Your task to perform on an android device: create a new album in the google photos Image 0: 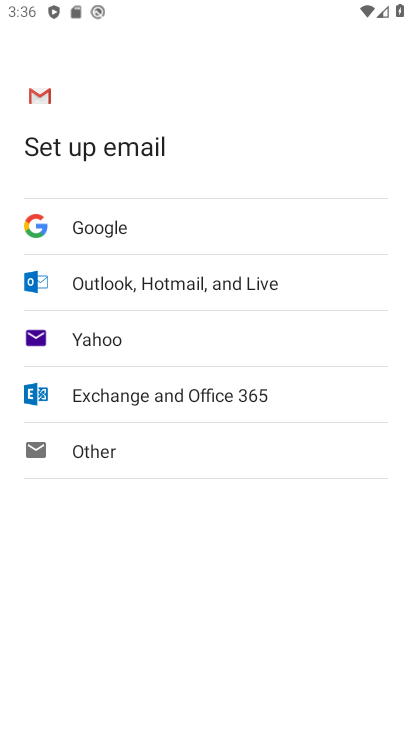
Step 0: press back button
Your task to perform on an android device: create a new album in the google photos Image 1: 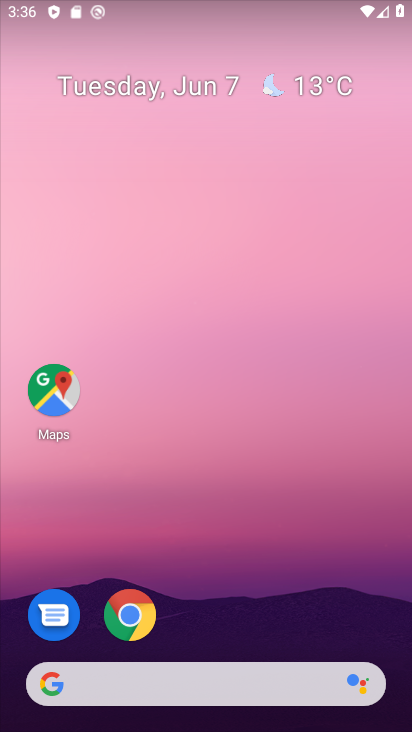
Step 1: drag from (201, 555) to (191, 250)
Your task to perform on an android device: create a new album in the google photos Image 2: 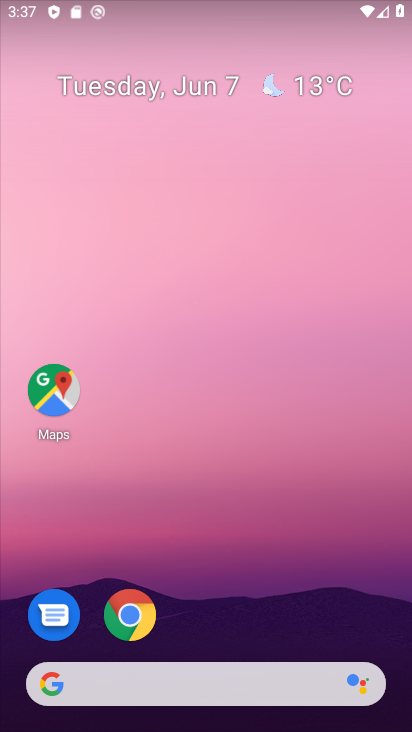
Step 2: drag from (275, 654) to (267, 217)
Your task to perform on an android device: create a new album in the google photos Image 3: 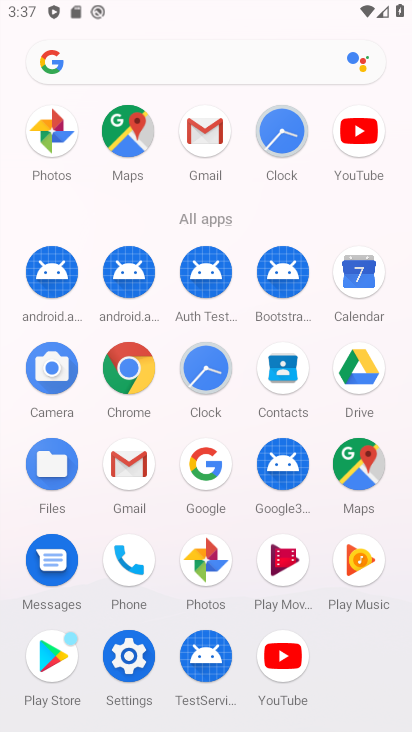
Step 3: click (202, 568)
Your task to perform on an android device: create a new album in the google photos Image 4: 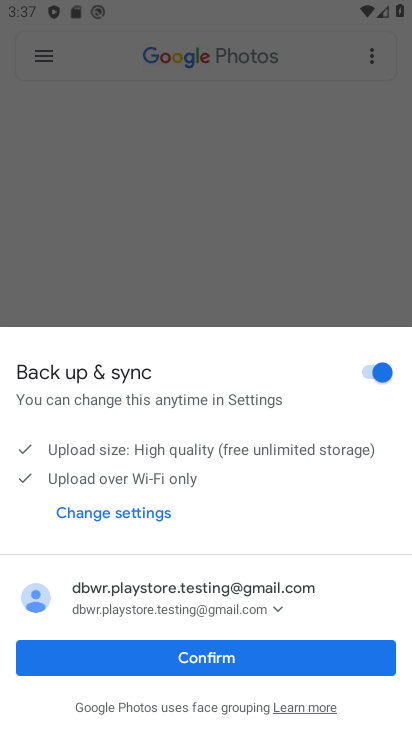
Step 4: click (258, 655)
Your task to perform on an android device: create a new album in the google photos Image 5: 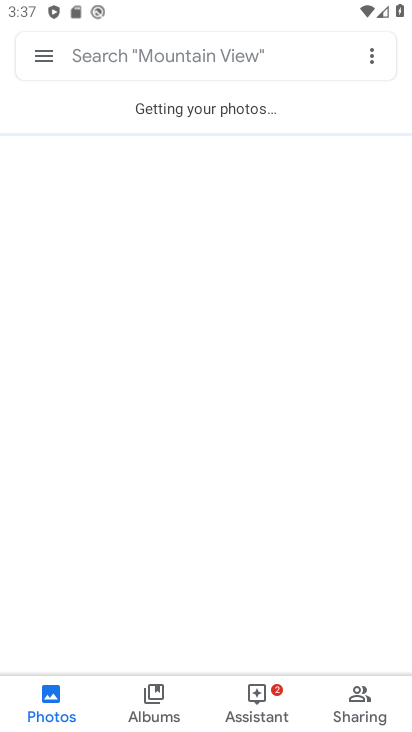
Step 5: click (158, 707)
Your task to perform on an android device: create a new album in the google photos Image 6: 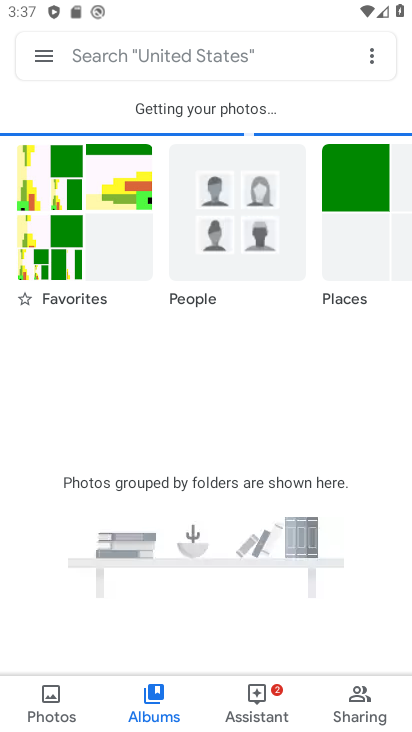
Step 6: drag from (367, 58) to (234, 294)
Your task to perform on an android device: create a new album in the google photos Image 7: 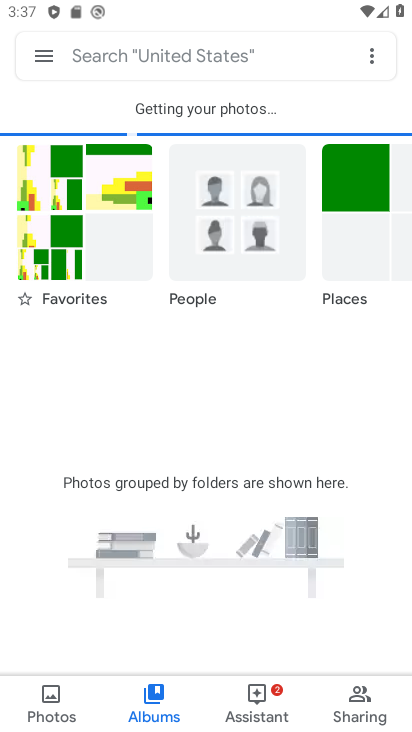
Step 7: click (333, 90)
Your task to perform on an android device: create a new album in the google photos Image 8: 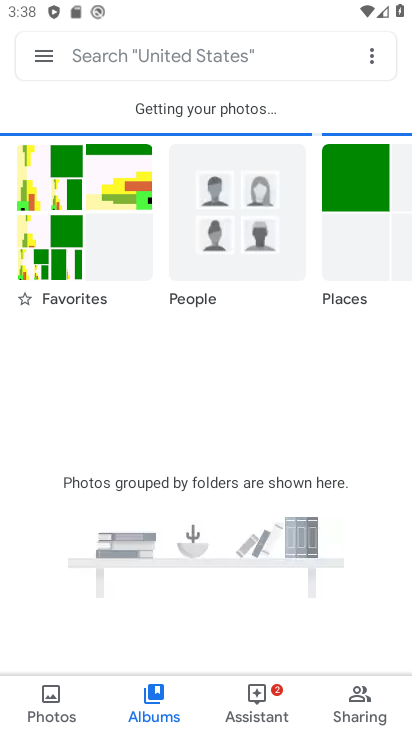
Step 8: click (333, 90)
Your task to perform on an android device: create a new album in the google photos Image 9: 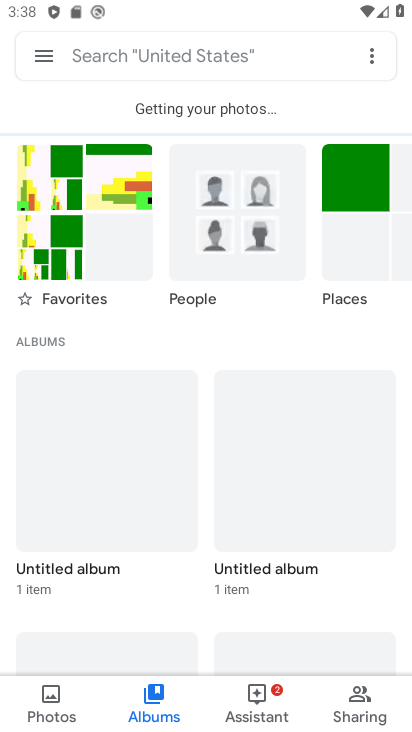
Step 9: click (364, 59)
Your task to perform on an android device: create a new album in the google photos Image 10: 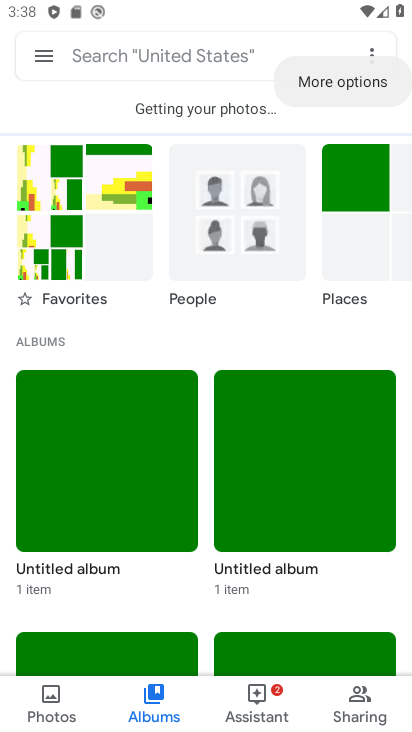
Step 10: click (362, 59)
Your task to perform on an android device: create a new album in the google photos Image 11: 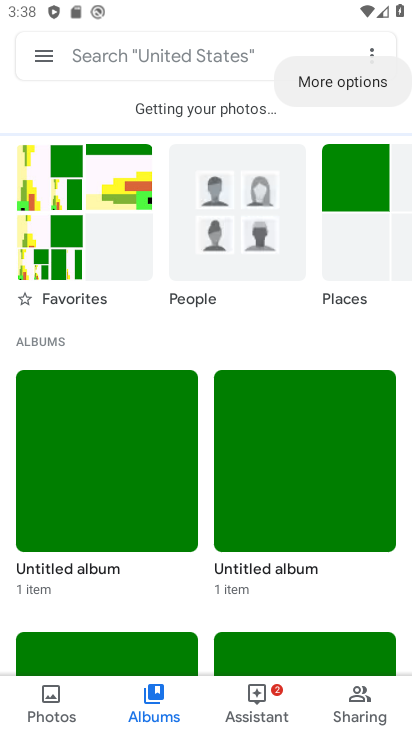
Step 11: click (356, 62)
Your task to perform on an android device: create a new album in the google photos Image 12: 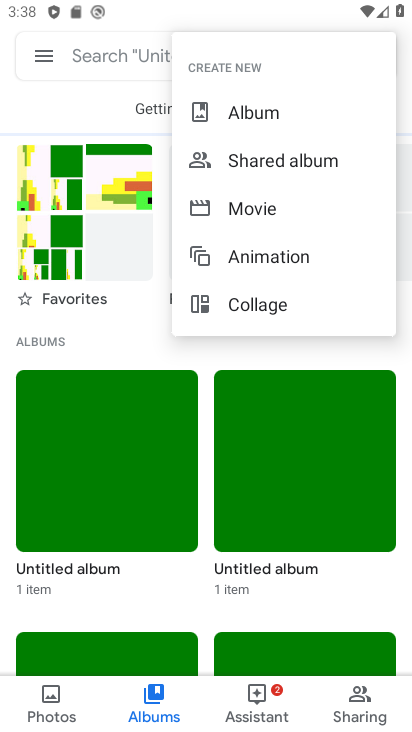
Step 12: click (246, 109)
Your task to perform on an android device: create a new album in the google photos Image 13: 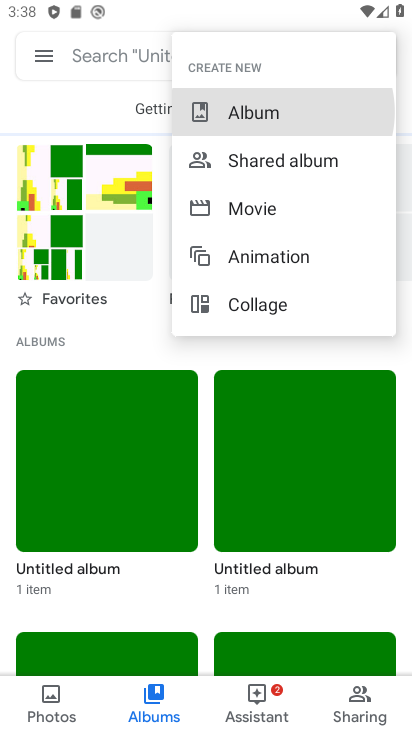
Step 13: click (241, 121)
Your task to perform on an android device: create a new album in the google photos Image 14: 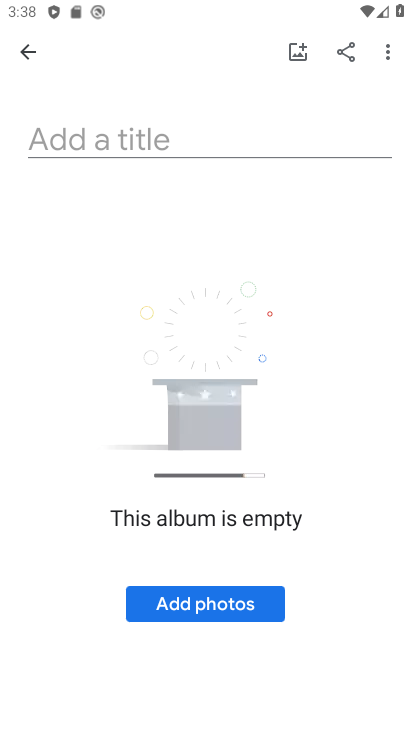
Step 14: click (87, 145)
Your task to perform on an android device: create a new album in the google photos Image 15: 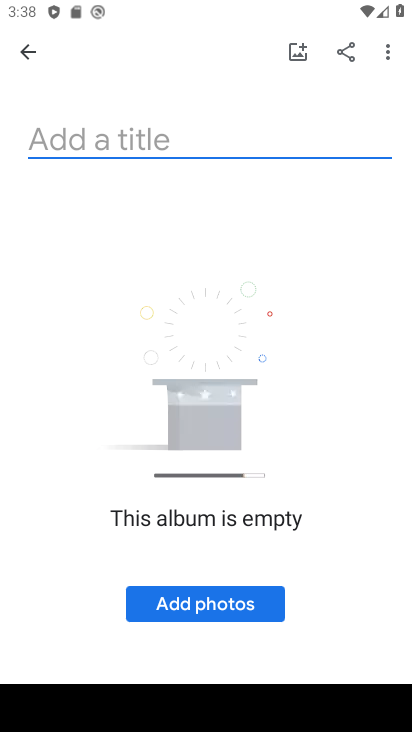
Step 15: type "raman"
Your task to perform on an android device: create a new album in the google photos Image 16: 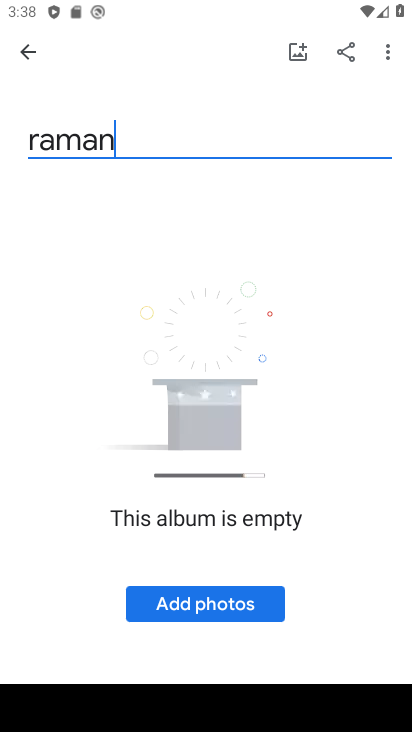
Step 16: click (195, 604)
Your task to perform on an android device: create a new album in the google photos Image 17: 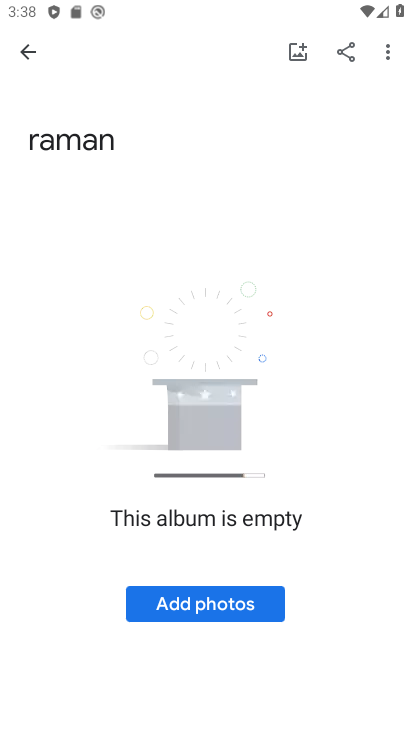
Step 17: click (195, 604)
Your task to perform on an android device: create a new album in the google photos Image 18: 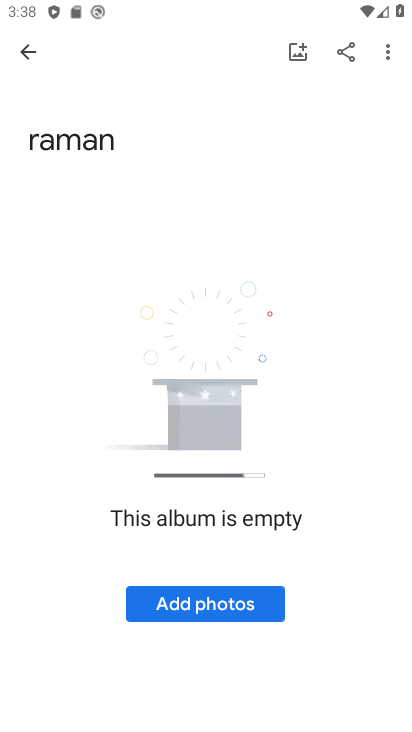
Step 18: click (195, 604)
Your task to perform on an android device: create a new album in the google photos Image 19: 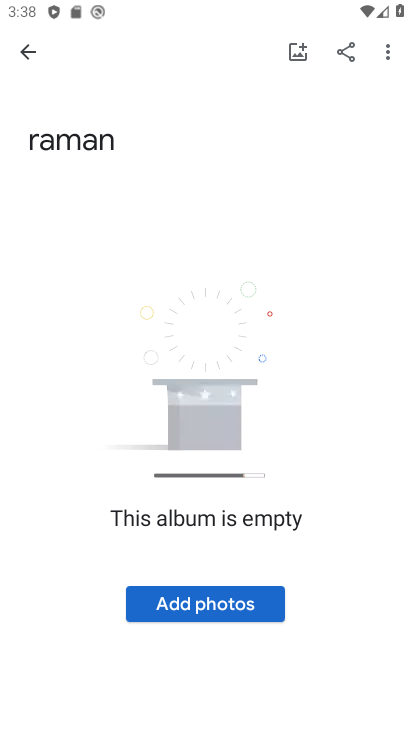
Step 19: click (195, 604)
Your task to perform on an android device: create a new album in the google photos Image 20: 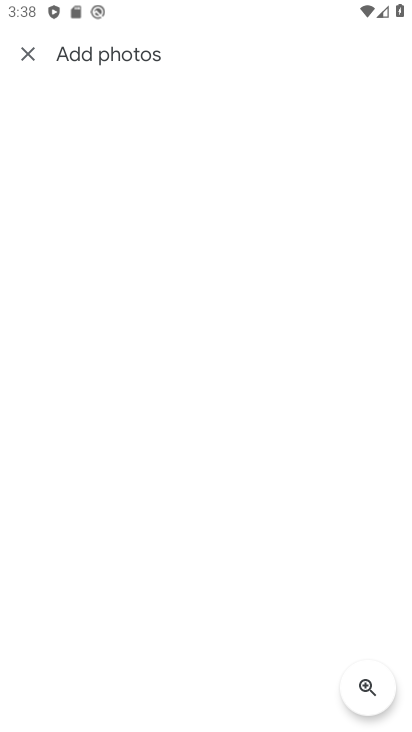
Step 20: click (207, 601)
Your task to perform on an android device: create a new album in the google photos Image 21: 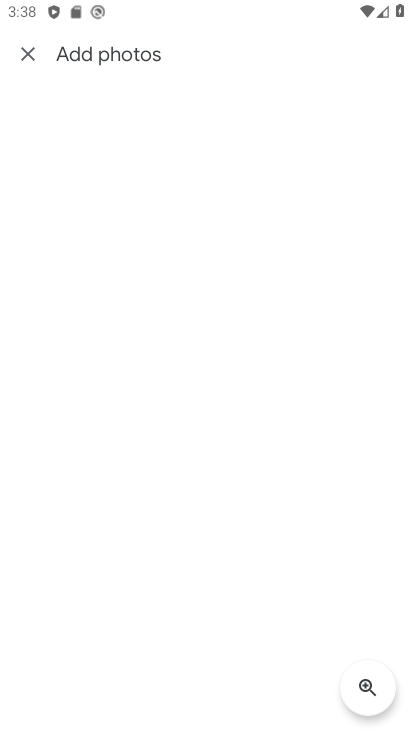
Step 21: click (207, 601)
Your task to perform on an android device: create a new album in the google photos Image 22: 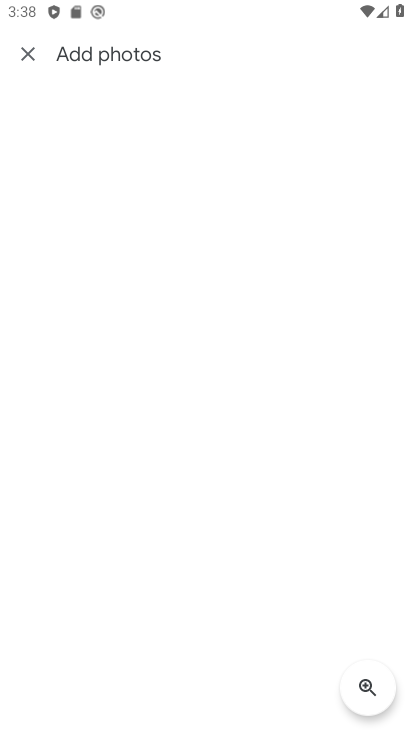
Step 22: task complete